Your task to perform on an android device: check data usage Image 0: 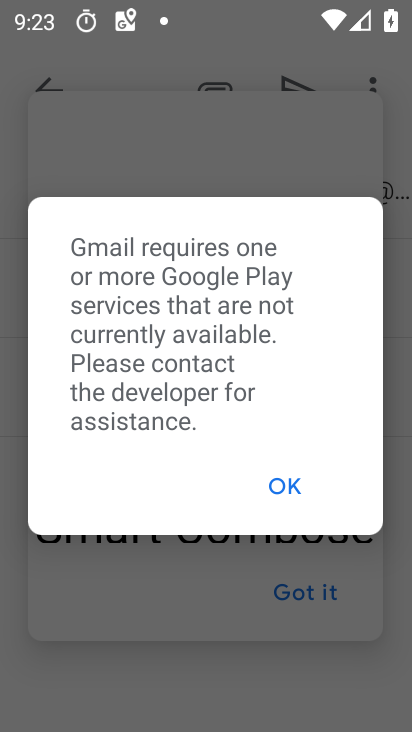
Step 0: press home button
Your task to perform on an android device: check data usage Image 1: 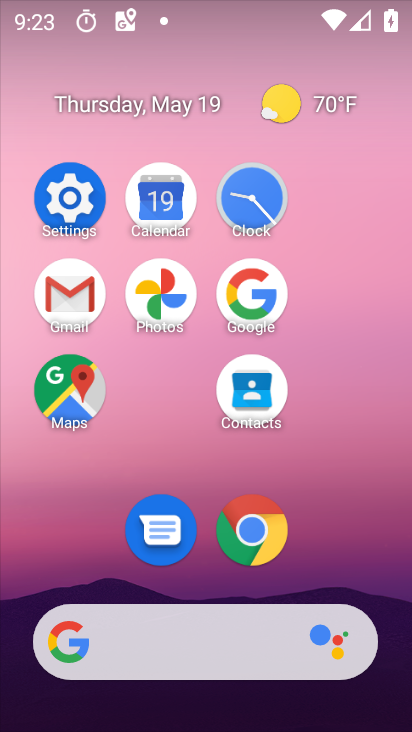
Step 1: click (81, 205)
Your task to perform on an android device: check data usage Image 2: 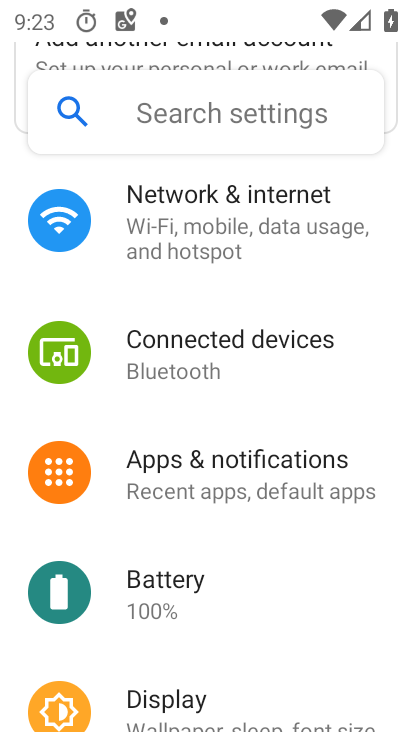
Step 2: drag from (268, 298) to (293, 578)
Your task to perform on an android device: check data usage Image 3: 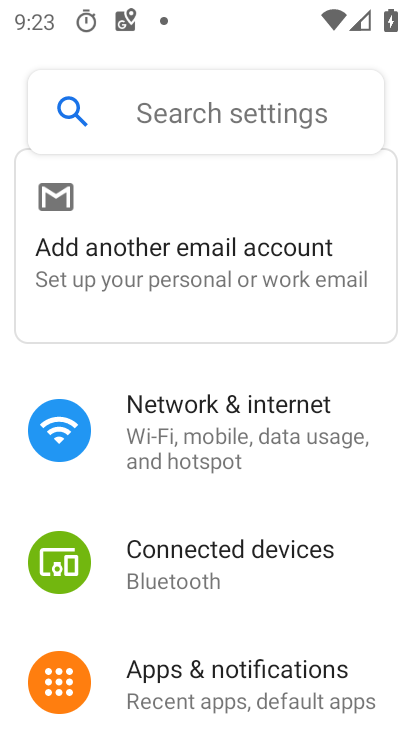
Step 3: click (255, 435)
Your task to perform on an android device: check data usage Image 4: 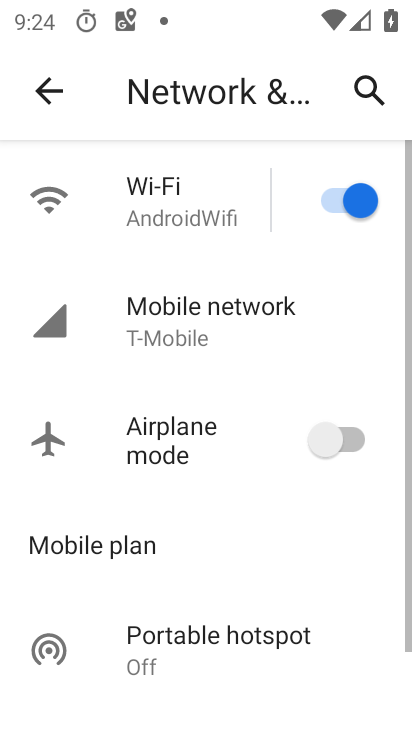
Step 4: drag from (295, 577) to (272, 445)
Your task to perform on an android device: check data usage Image 5: 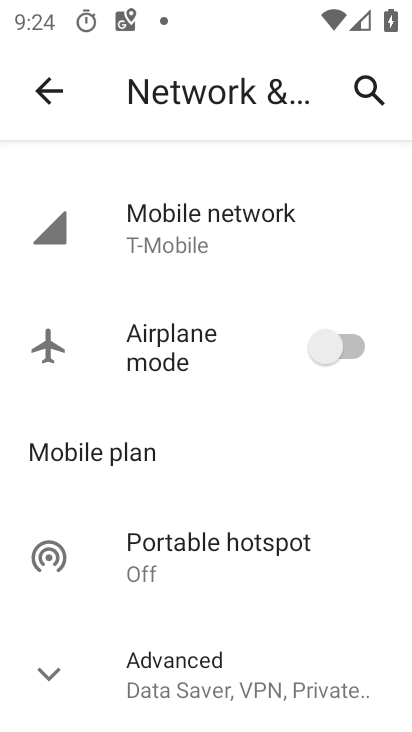
Step 5: click (196, 251)
Your task to perform on an android device: check data usage Image 6: 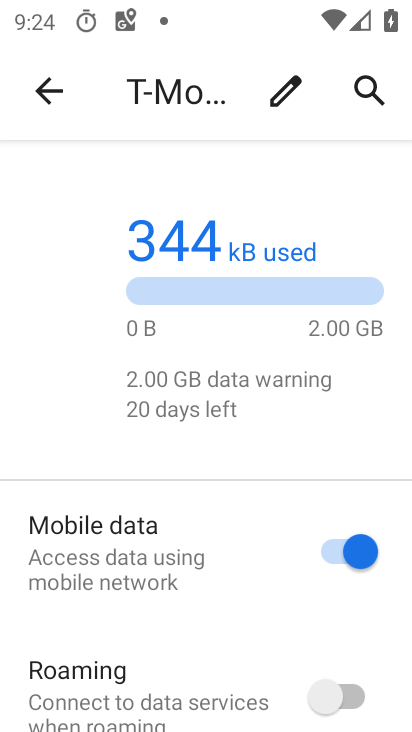
Step 6: task complete